Your task to perform on an android device: create a new album in the google photos Image 0: 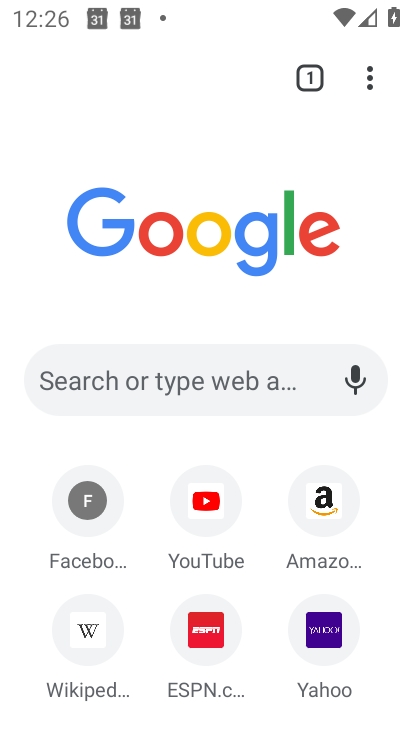
Step 0: press home button
Your task to perform on an android device: create a new album in the google photos Image 1: 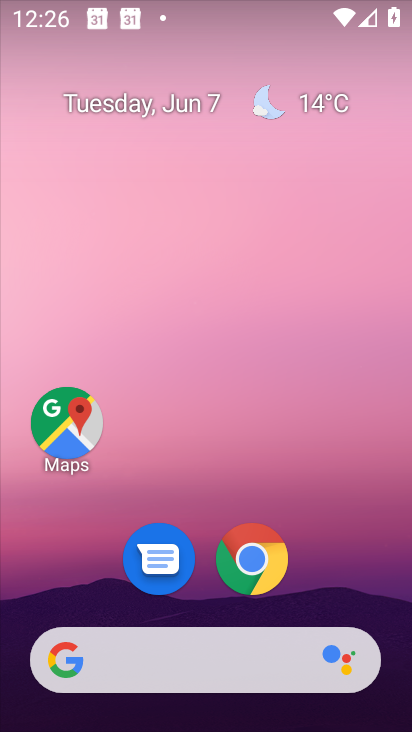
Step 1: drag from (84, 617) to (178, 178)
Your task to perform on an android device: create a new album in the google photos Image 2: 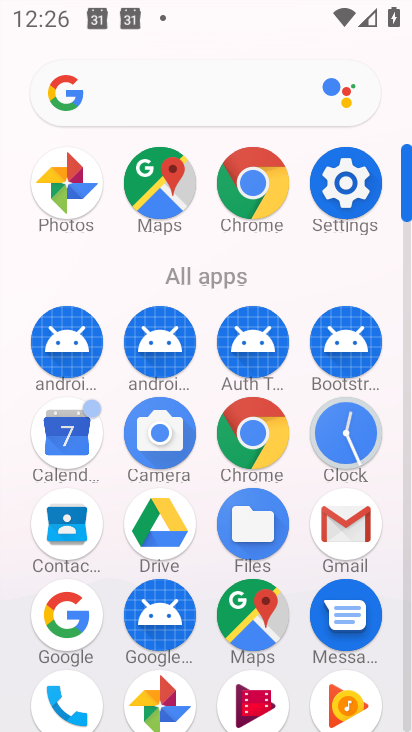
Step 2: drag from (171, 646) to (229, 420)
Your task to perform on an android device: create a new album in the google photos Image 3: 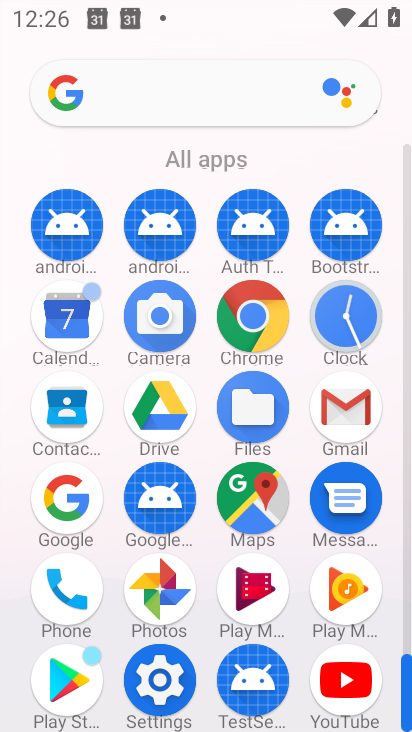
Step 3: click (167, 589)
Your task to perform on an android device: create a new album in the google photos Image 4: 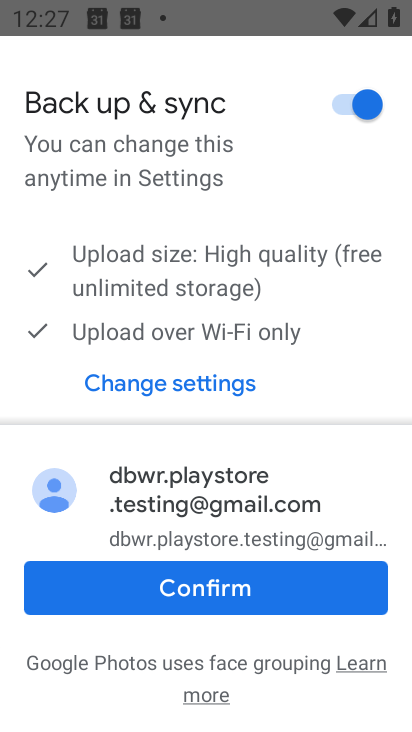
Step 4: click (243, 593)
Your task to perform on an android device: create a new album in the google photos Image 5: 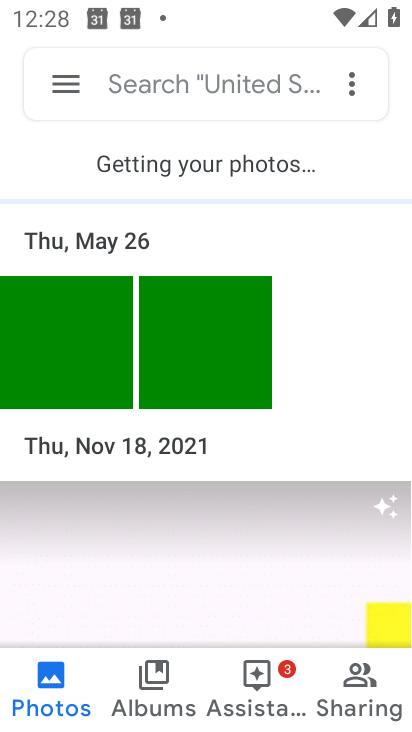
Step 5: click (67, 376)
Your task to perform on an android device: create a new album in the google photos Image 6: 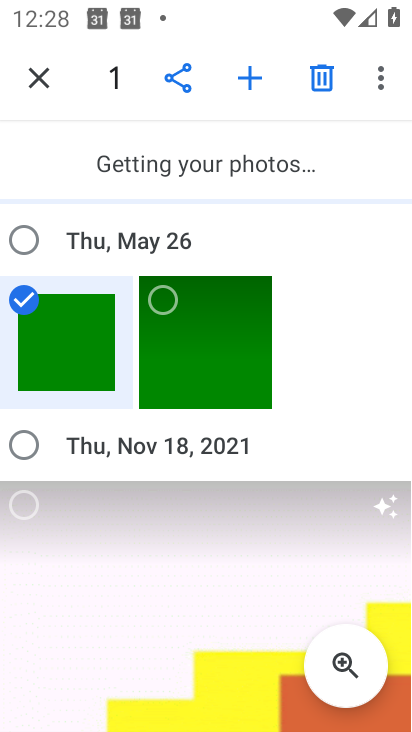
Step 6: click (216, 375)
Your task to perform on an android device: create a new album in the google photos Image 7: 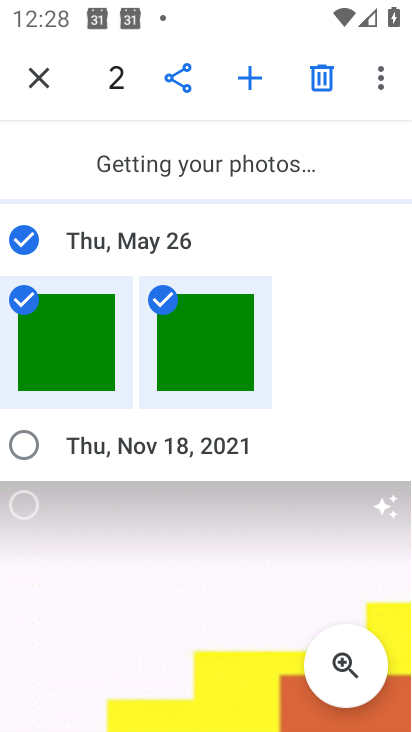
Step 7: click (28, 442)
Your task to perform on an android device: create a new album in the google photos Image 8: 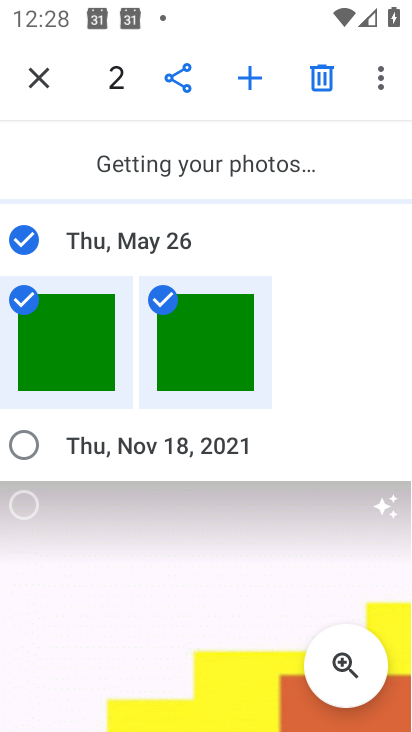
Step 8: click (23, 445)
Your task to perform on an android device: create a new album in the google photos Image 9: 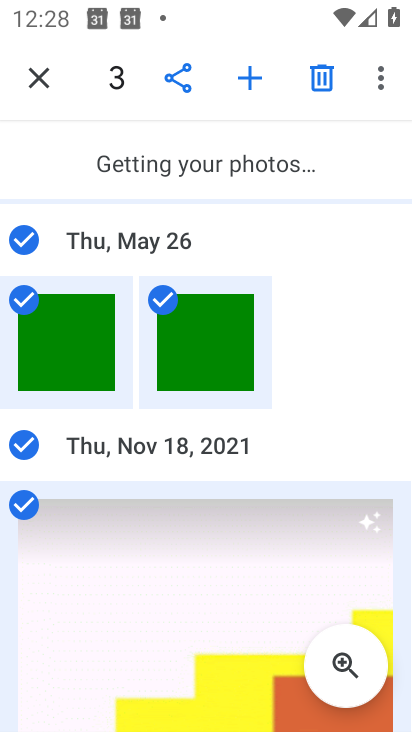
Step 9: click (251, 68)
Your task to perform on an android device: create a new album in the google photos Image 10: 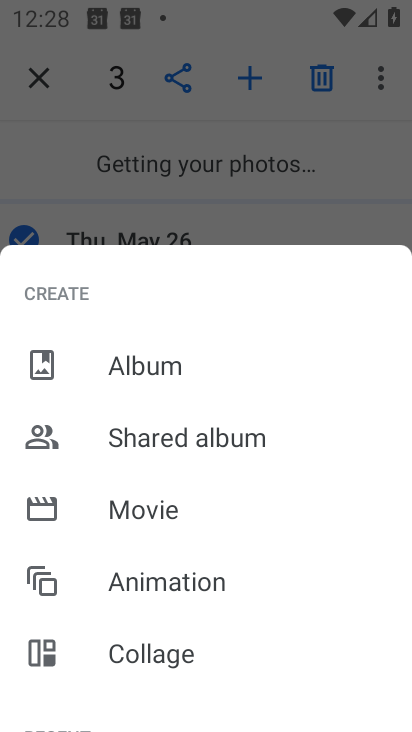
Step 10: click (230, 383)
Your task to perform on an android device: create a new album in the google photos Image 11: 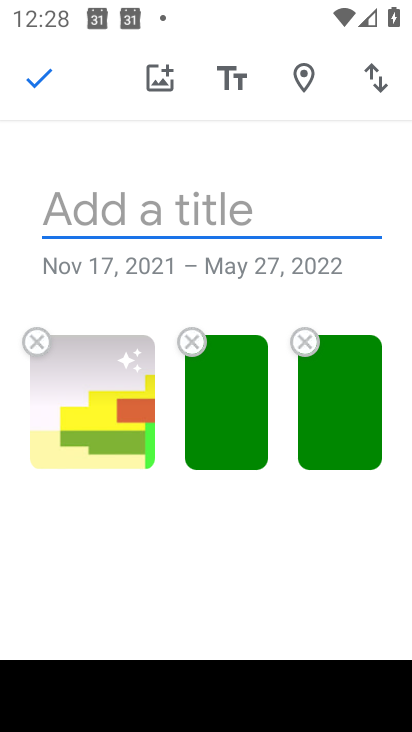
Step 11: type "xx"
Your task to perform on an android device: create a new album in the google photos Image 12: 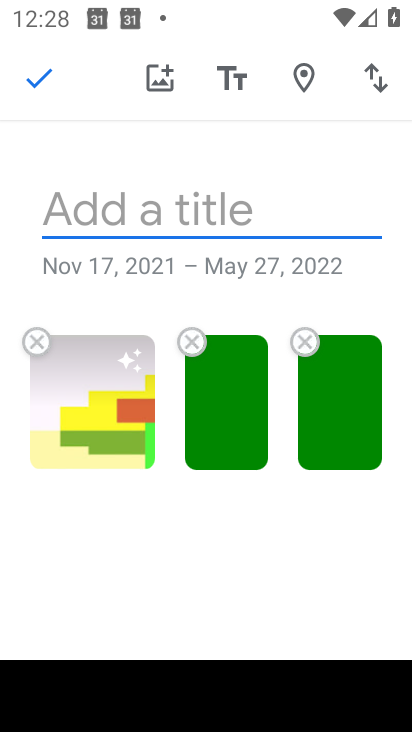
Step 12: click (52, 85)
Your task to perform on an android device: create a new album in the google photos Image 13: 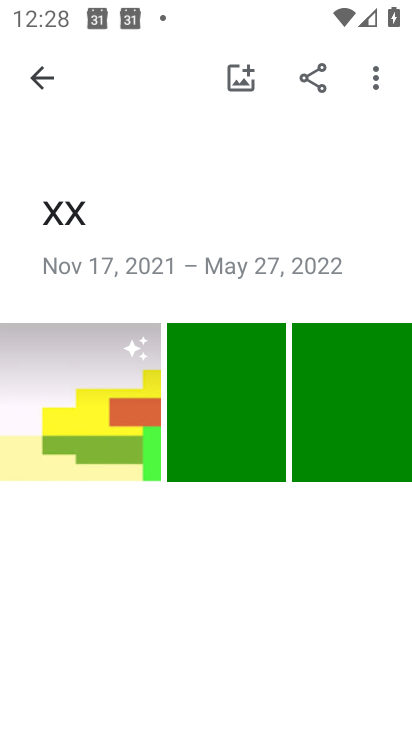
Step 13: task complete